Your task to perform on an android device: read, delete, or share a saved page in the chrome app Image 0: 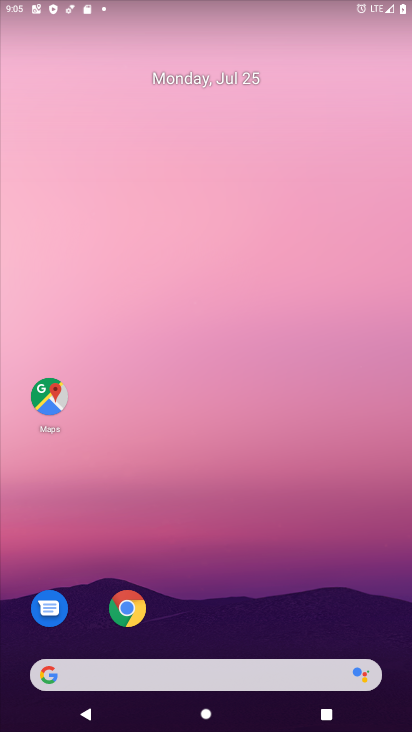
Step 0: click (125, 607)
Your task to perform on an android device: read, delete, or share a saved page in the chrome app Image 1: 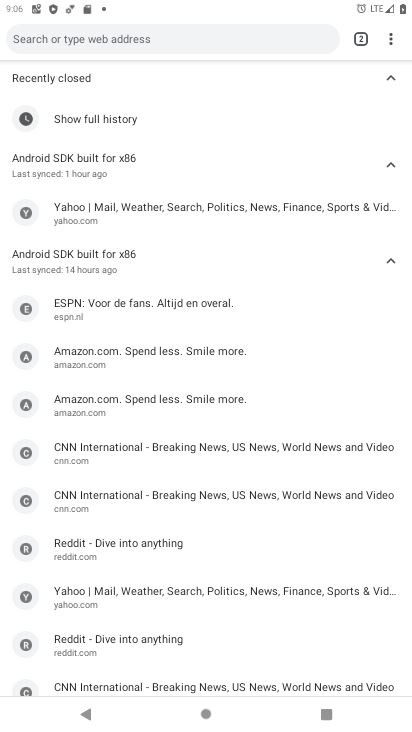
Step 1: click (393, 39)
Your task to perform on an android device: read, delete, or share a saved page in the chrome app Image 2: 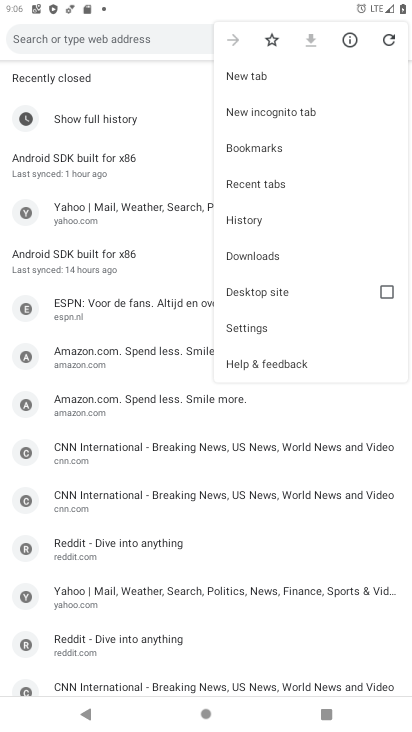
Step 2: click (248, 257)
Your task to perform on an android device: read, delete, or share a saved page in the chrome app Image 3: 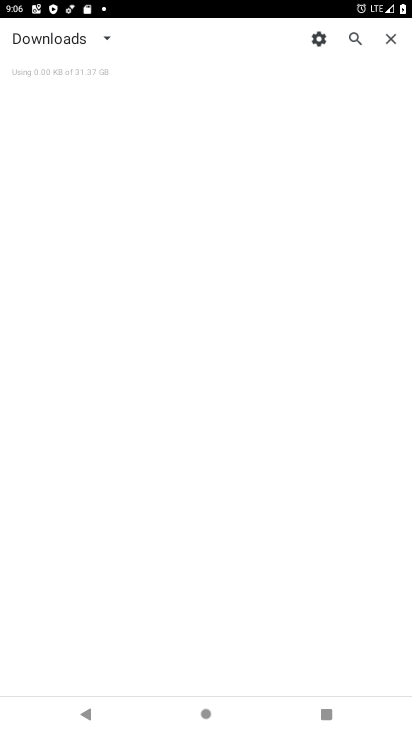
Step 3: click (105, 34)
Your task to perform on an android device: read, delete, or share a saved page in the chrome app Image 4: 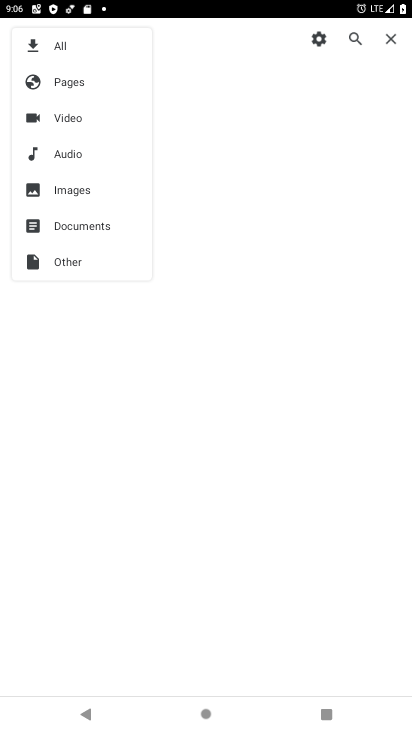
Step 4: click (69, 82)
Your task to perform on an android device: read, delete, or share a saved page in the chrome app Image 5: 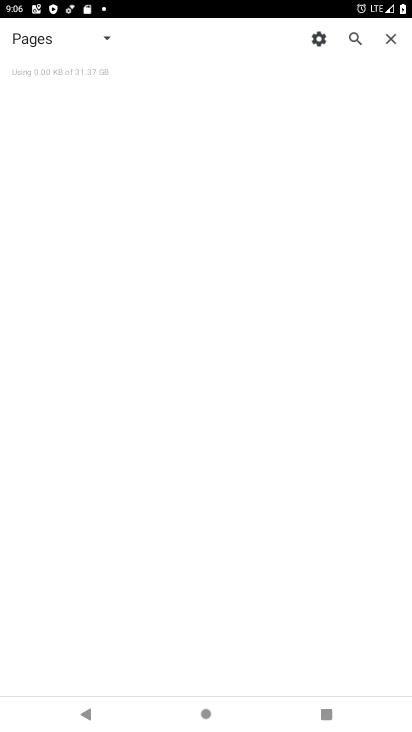
Step 5: task complete